Your task to perform on an android device: Open eBay Image 0: 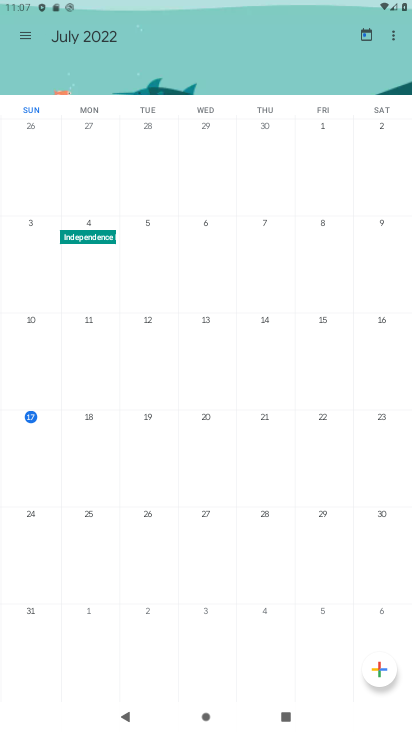
Step 0: press home button
Your task to perform on an android device: Open eBay Image 1: 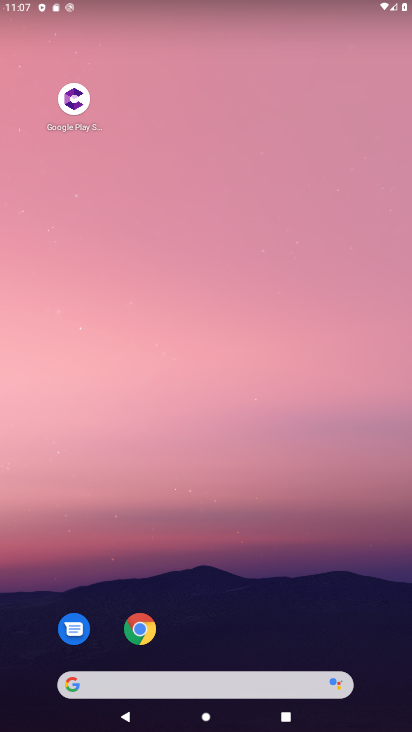
Step 1: click (147, 633)
Your task to perform on an android device: Open eBay Image 2: 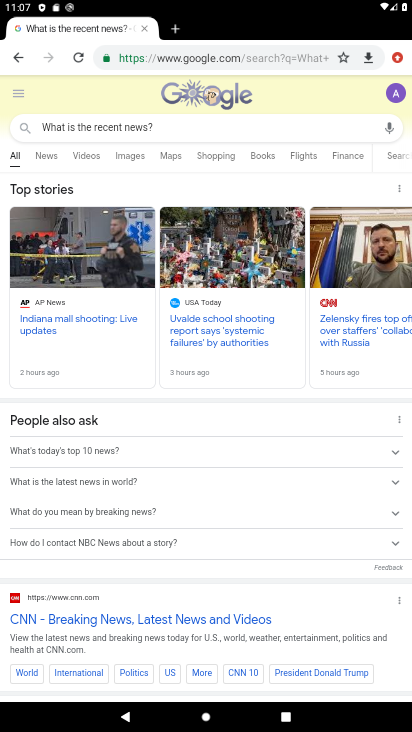
Step 2: drag from (400, 66) to (282, 103)
Your task to perform on an android device: Open eBay Image 3: 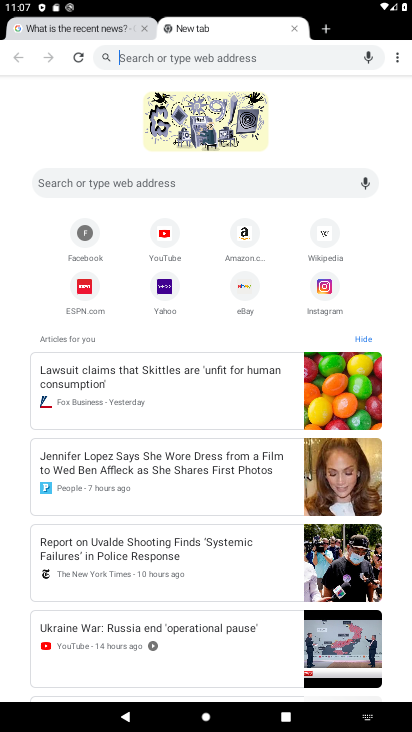
Step 3: click (233, 293)
Your task to perform on an android device: Open eBay Image 4: 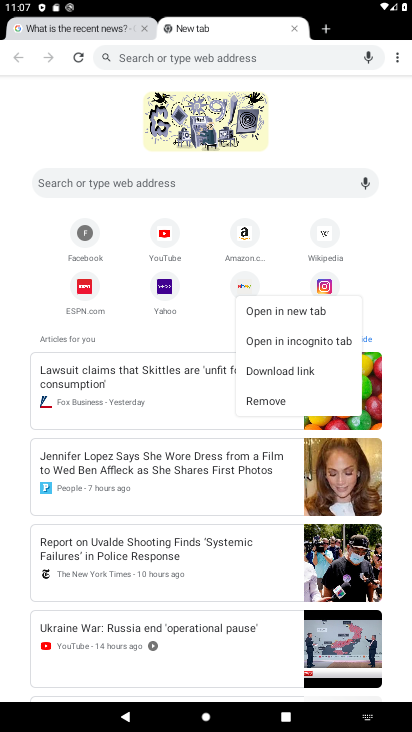
Step 4: click (233, 293)
Your task to perform on an android device: Open eBay Image 5: 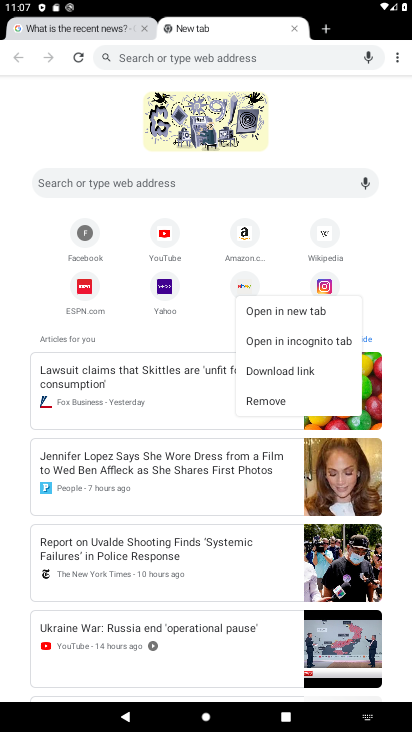
Step 5: click (244, 286)
Your task to perform on an android device: Open eBay Image 6: 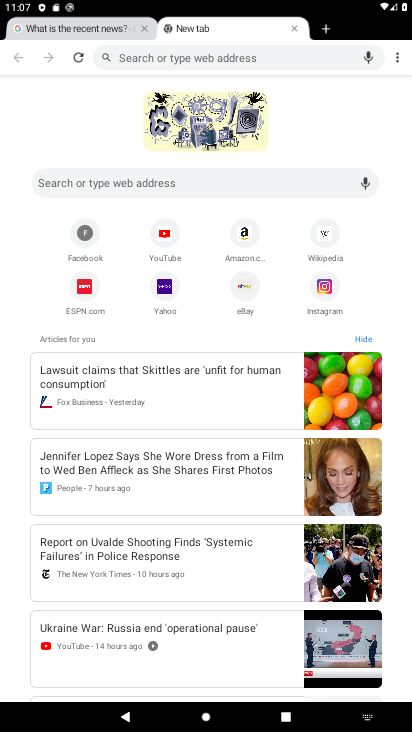
Step 6: click (244, 286)
Your task to perform on an android device: Open eBay Image 7: 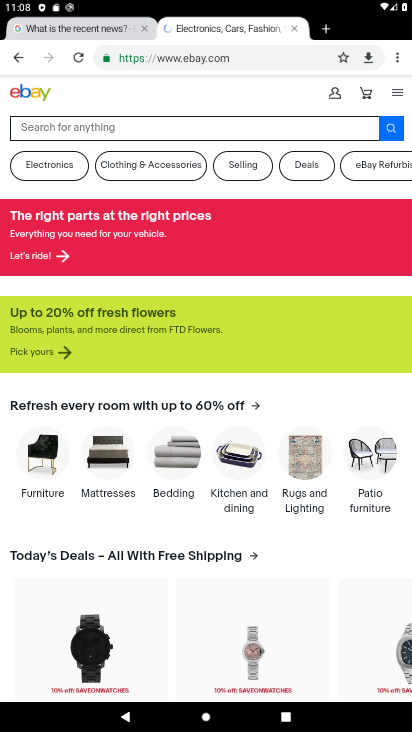
Step 7: task complete